Your task to perform on an android device: change the clock display to show seconds Image 0: 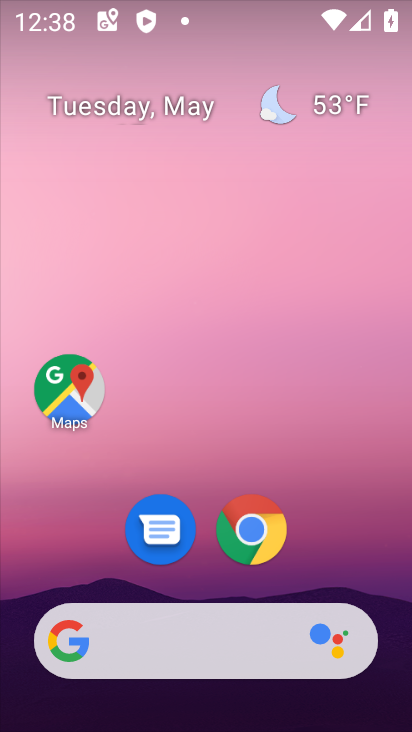
Step 0: drag from (178, 710) to (176, 299)
Your task to perform on an android device: change the clock display to show seconds Image 1: 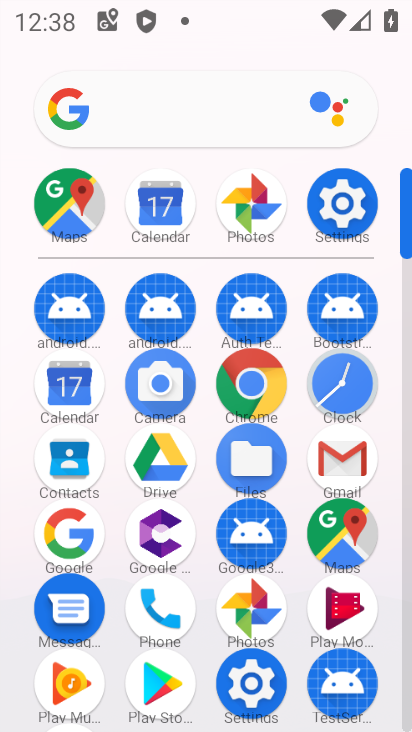
Step 1: click (346, 385)
Your task to perform on an android device: change the clock display to show seconds Image 2: 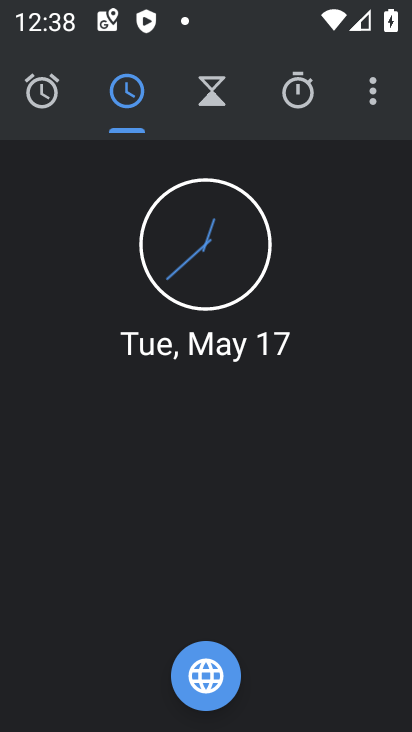
Step 2: click (374, 105)
Your task to perform on an android device: change the clock display to show seconds Image 3: 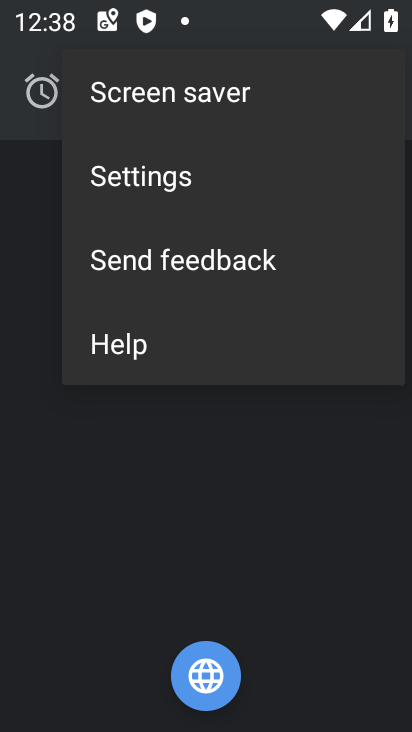
Step 3: click (156, 180)
Your task to perform on an android device: change the clock display to show seconds Image 4: 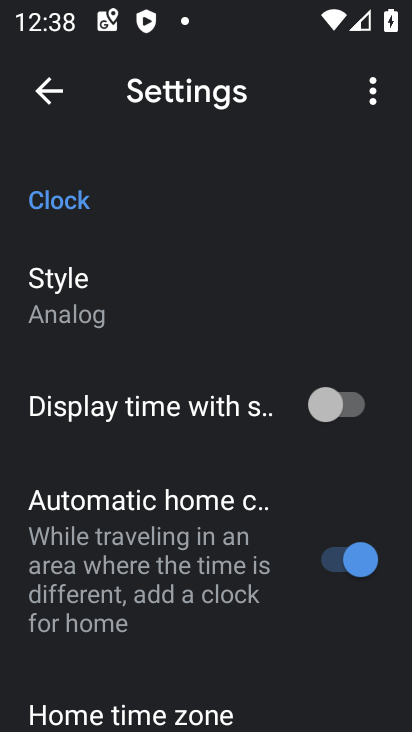
Step 4: click (347, 405)
Your task to perform on an android device: change the clock display to show seconds Image 5: 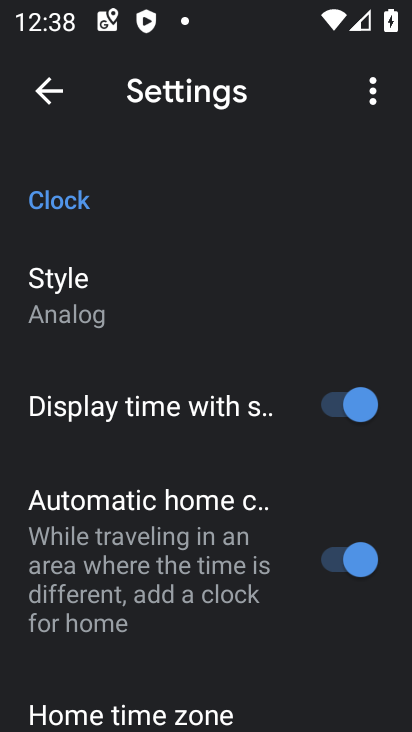
Step 5: task complete